Your task to perform on an android device: See recent photos Image 0: 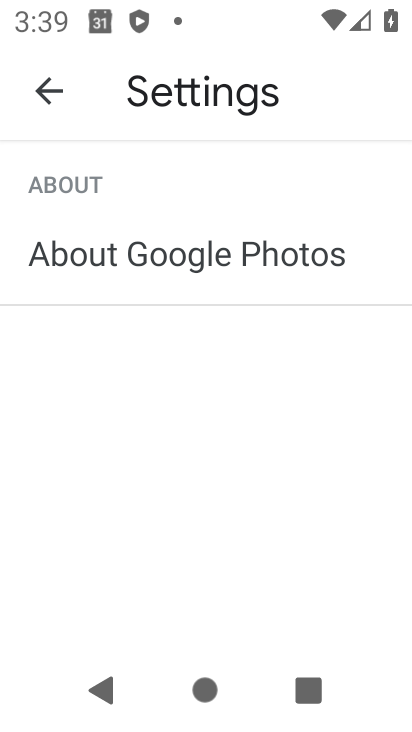
Step 0: press home button
Your task to perform on an android device: See recent photos Image 1: 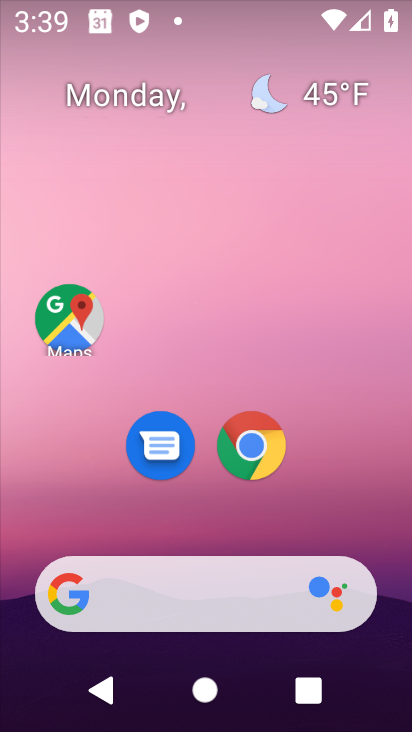
Step 1: drag from (312, 502) to (255, 42)
Your task to perform on an android device: See recent photos Image 2: 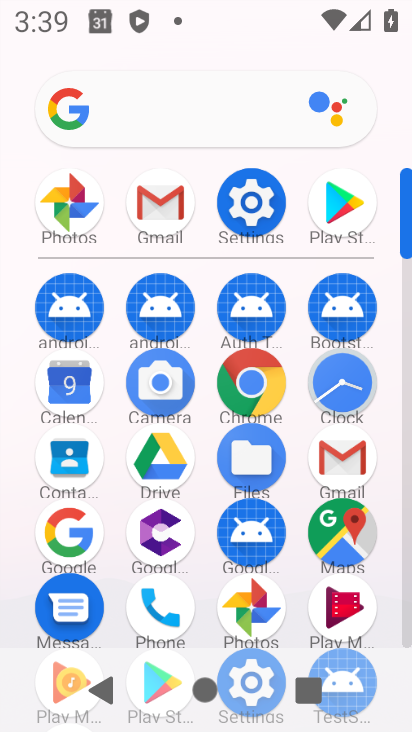
Step 2: click (242, 601)
Your task to perform on an android device: See recent photos Image 3: 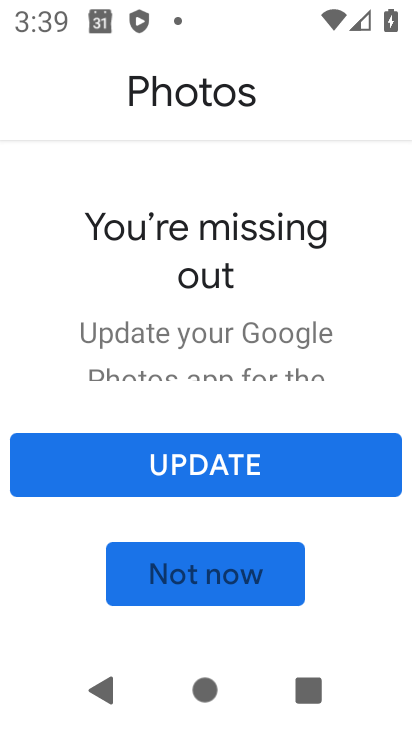
Step 3: click (214, 461)
Your task to perform on an android device: See recent photos Image 4: 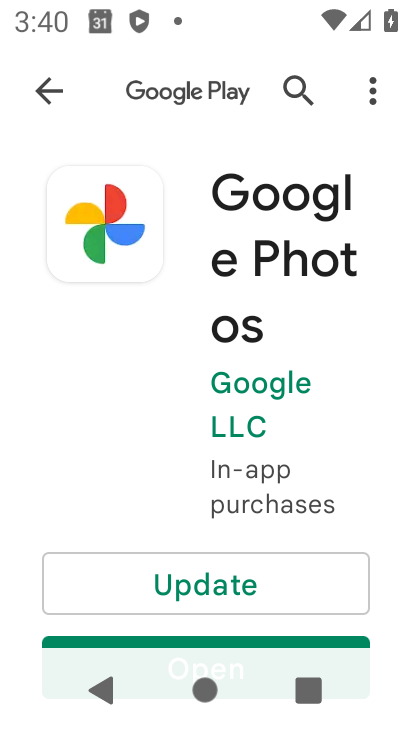
Step 4: click (209, 583)
Your task to perform on an android device: See recent photos Image 5: 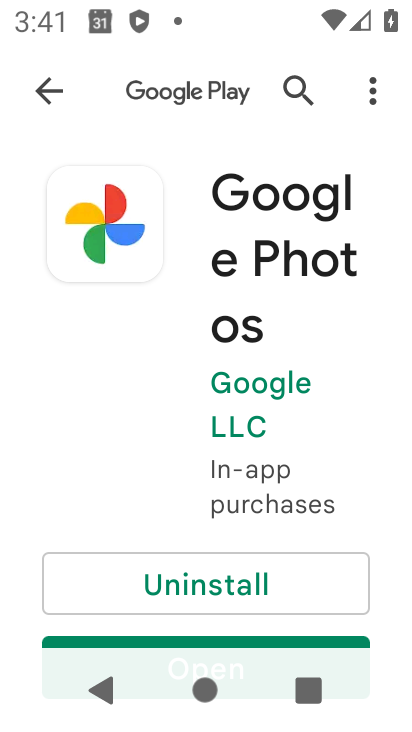
Step 5: drag from (234, 602) to (202, 363)
Your task to perform on an android device: See recent photos Image 6: 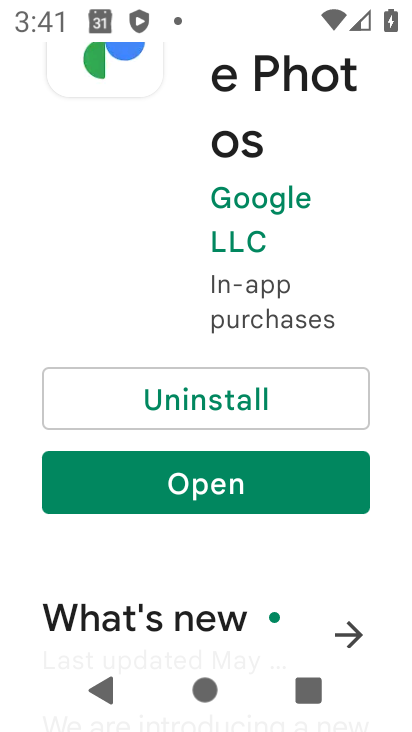
Step 6: click (226, 479)
Your task to perform on an android device: See recent photos Image 7: 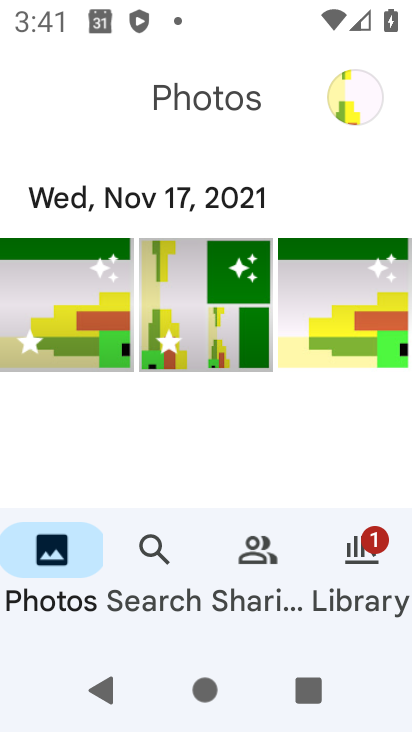
Step 7: task complete